Your task to perform on an android device: Open Chrome and go to settings Image 0: 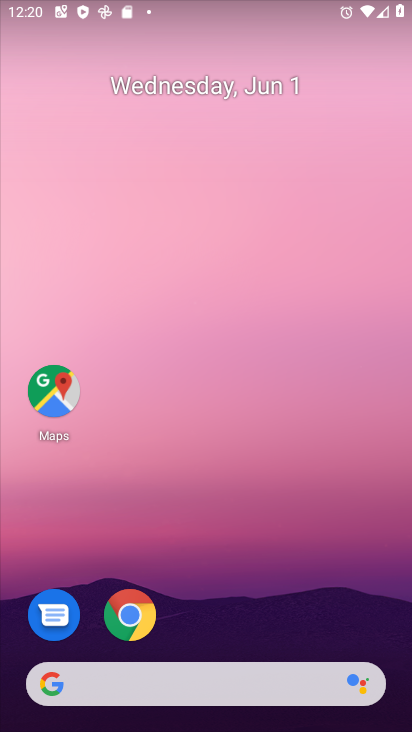
Step 0: drag from (341, 629) to (279, 19)
Your task to perform on an android device: Open Chrome and go to settings Image 1: 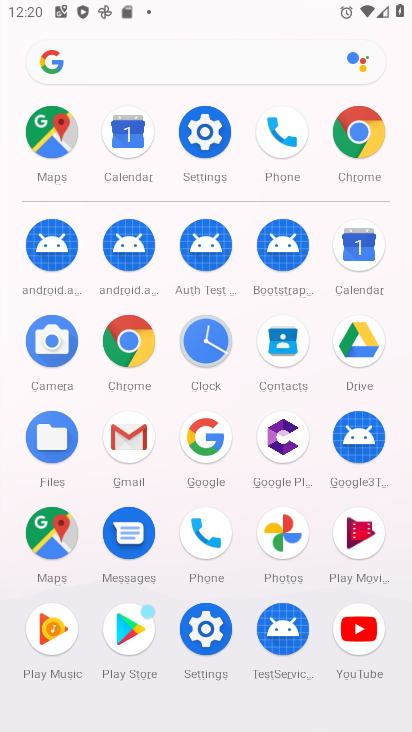
Step 1: click (354, 147)
Your task to perform on an android device: Open Chrome and go to settings Image 2: 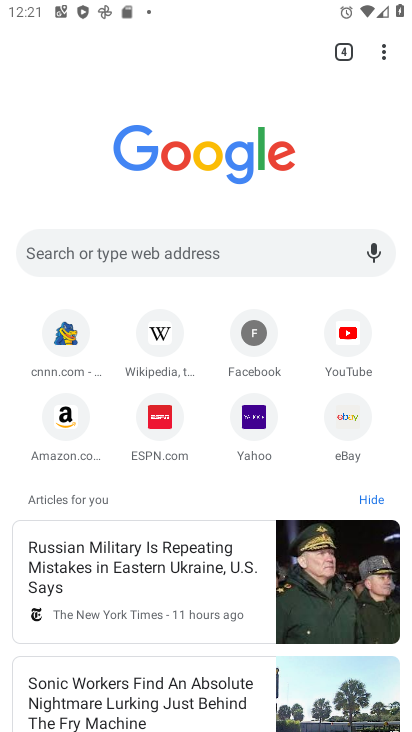
Step 2: task complete